Your task to perform on an android device: Open Google Maps and go to "Timeline" Image 0: 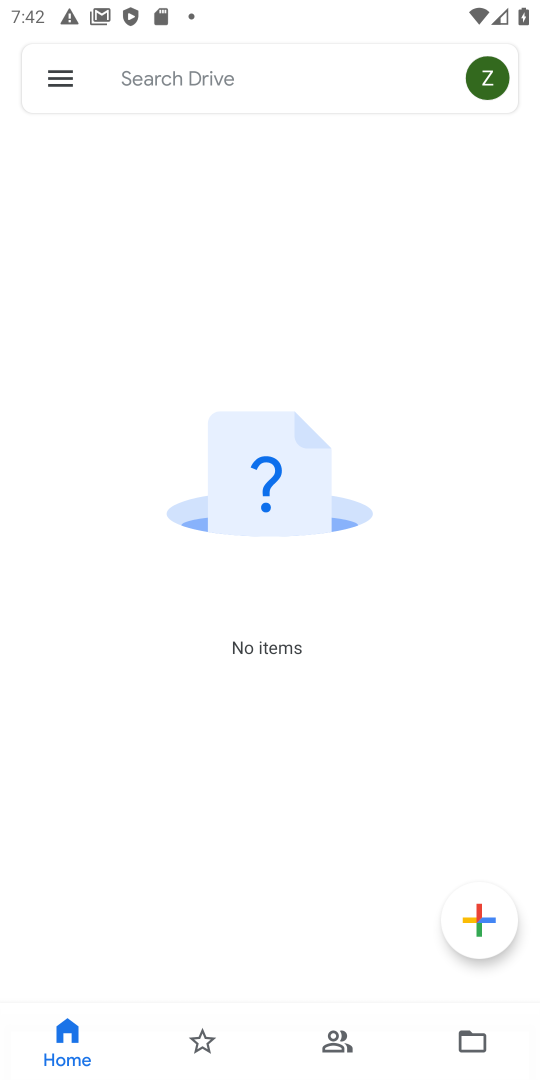
Step 0: press home button
Your task to perform on an android device: Open Google Maps and go to "Timeline" Image 1: 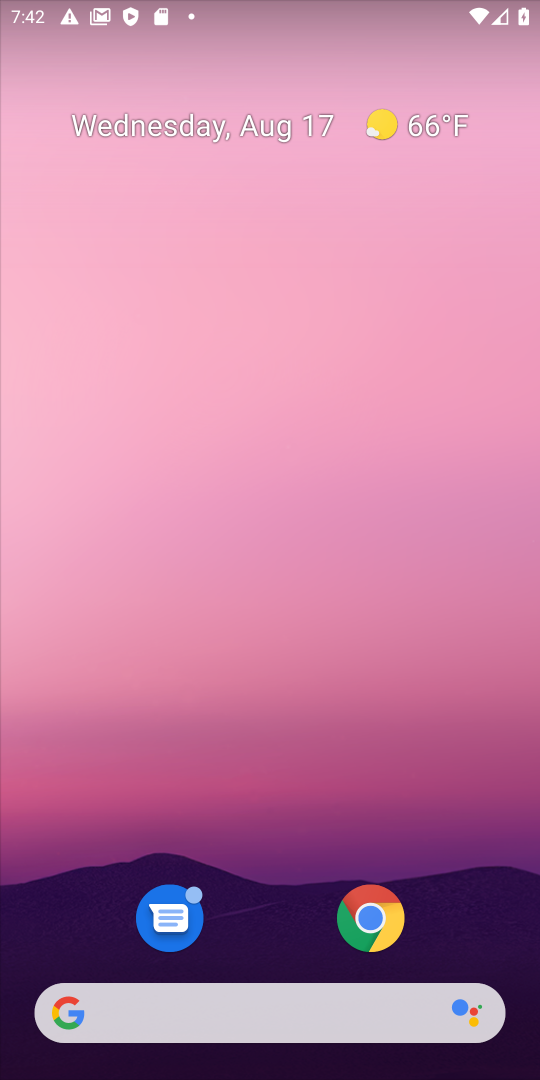
Step 1: drag from (474, 891) to (223, 0)
Your task to perform on an android device: Open Google Maps and go to "Timeline" Image 2: 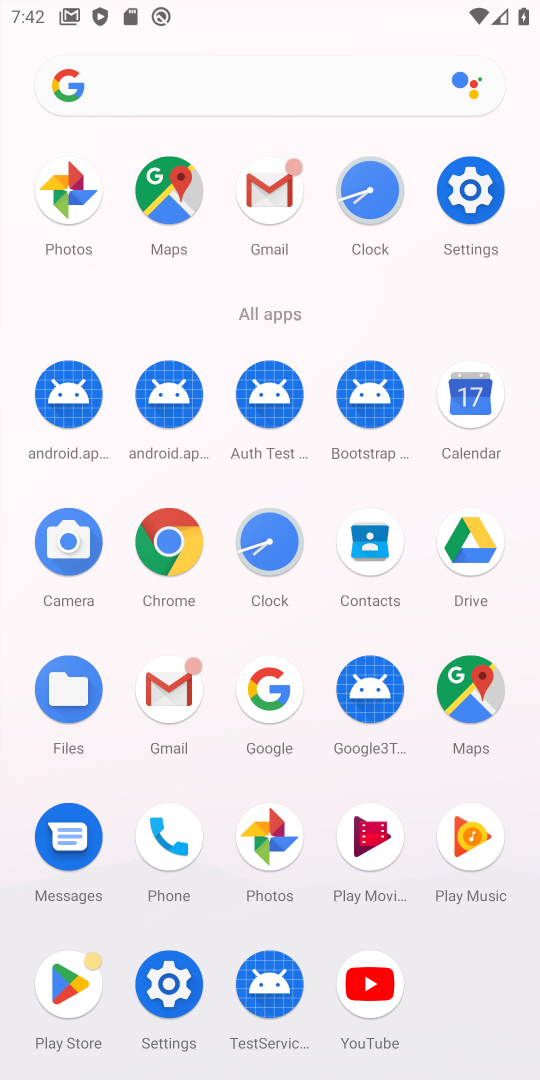
Step 2: click (461, 670)
Your task to perform on an android device: Open Google Maps and go to "Timeline" Image 3: 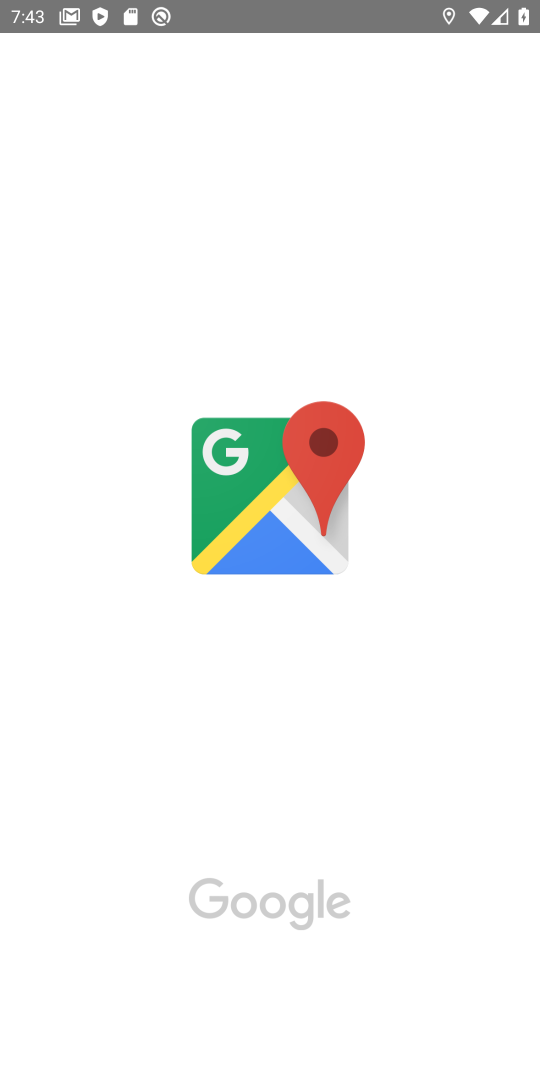
Step 3: task complete